Your task to perform on an android device: turn on wifi Image 0: 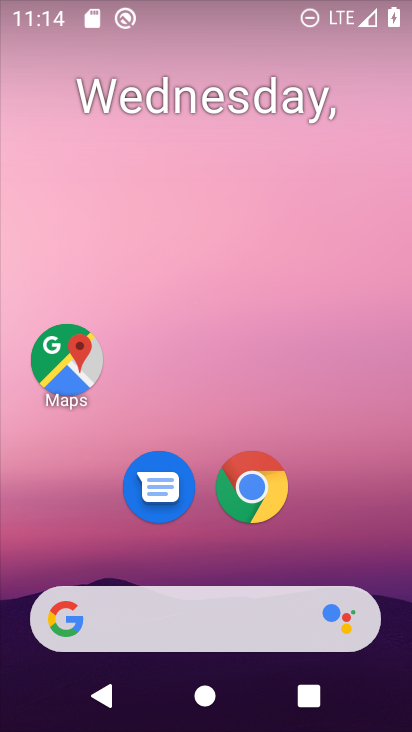
Step 0: drag from (322, 530) to (268, 0)
Your task to perform on an android device: turn on wifi Image 1: 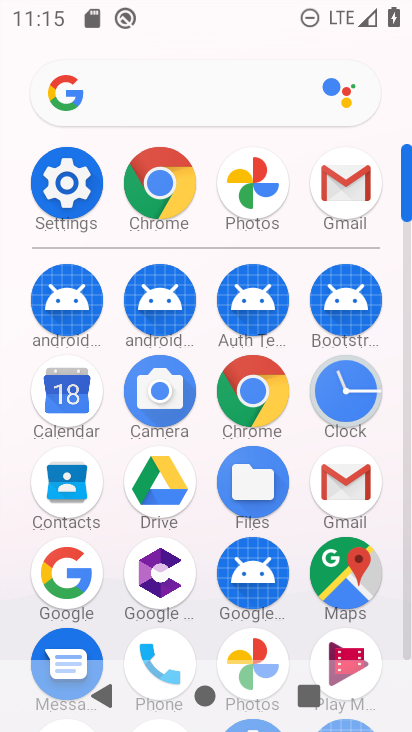
Step 1: click (69, 182)
Your task to perform on an android device: turn on wifi Image 2: 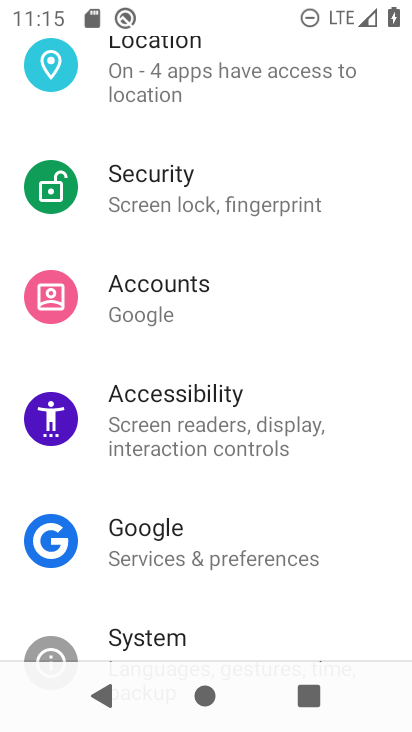
Step 2: drag from (194, 132) to (133, 543)
Your task to perform on an android device: turn on wifi Image 3: 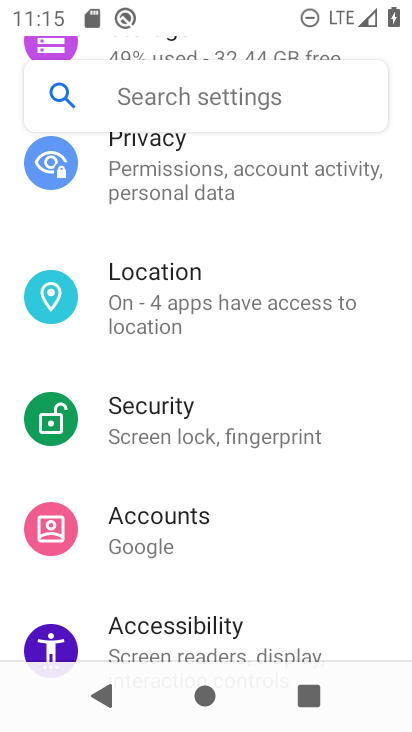
Step 3: drag from (154, 238) to (152, 711)
Your task to perform on an android device: turn on wifi Image 4: 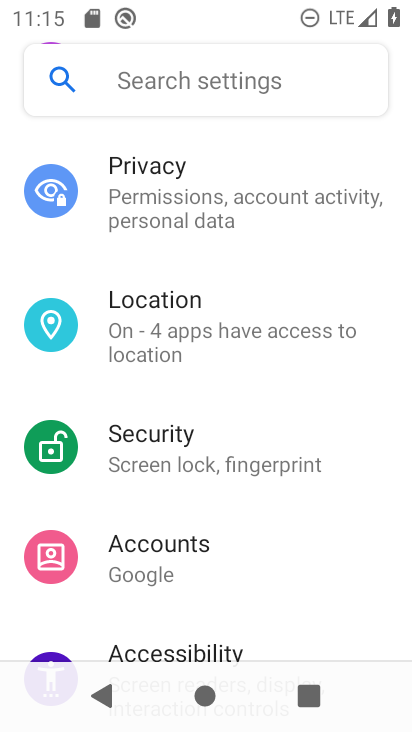
Step 4: drag from (235, 253) to (239, 730)
Your task to perform on an android device: turn on wifi Image 5: 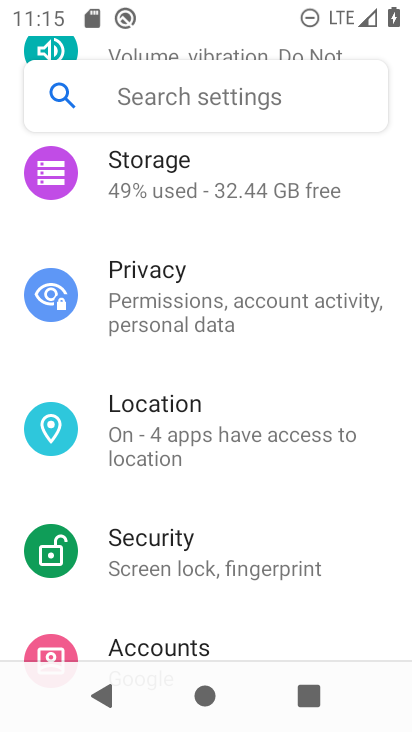
Step 5: drag from (196, 205) to (195, 535)
Your task to perform on an android device: turn on wifi Image 6: 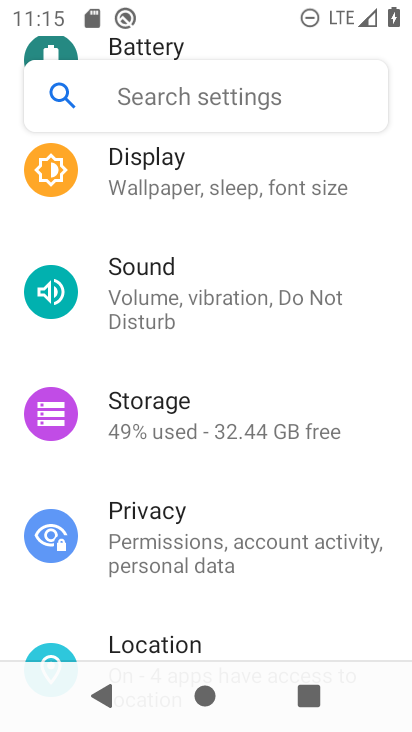
Step 6: drag from (150, 220) to (155, 725)
Your task to perform on an android device: turn on wifi Image 7: 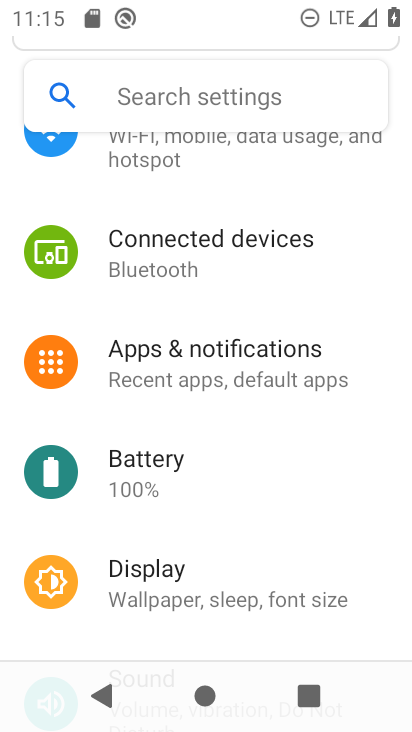
Step 7: drag from (120, 193) to (189, 546)
Your task to perform on an android device: turn on wifi Image 8: 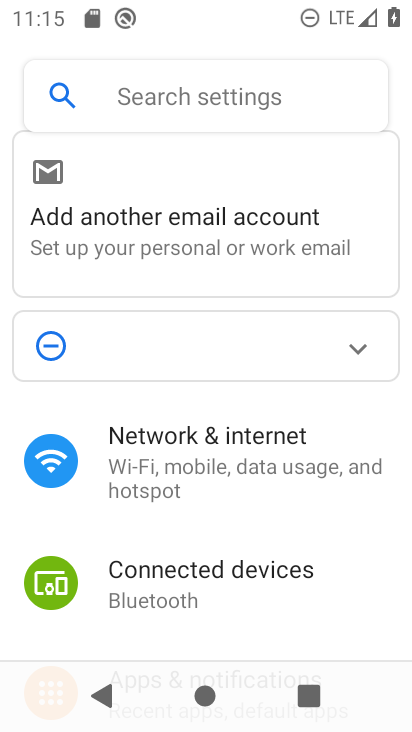
Step 8: click (241, 433)
Your task to perform on an android device: turn on wifi Image 9: 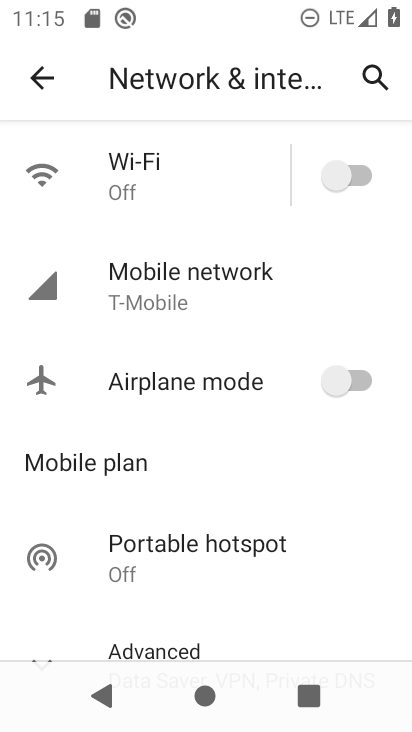
Step 9: click (339, 173)
Your task to perform on an android device: turn on wifi Image 10: 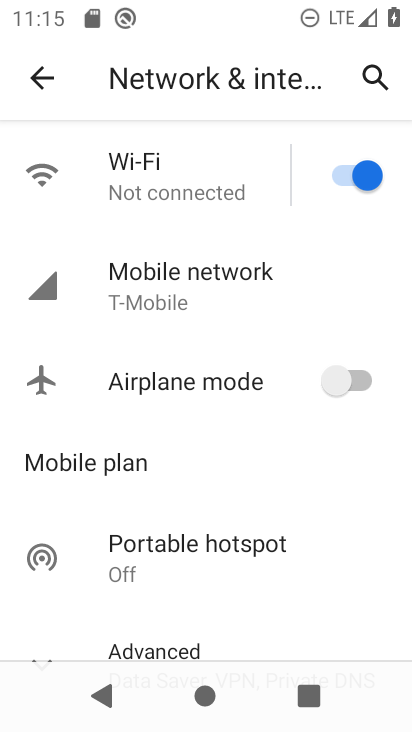
Step 10: task complete